Your task to perform on an android device: turn notification dots on Image 0: 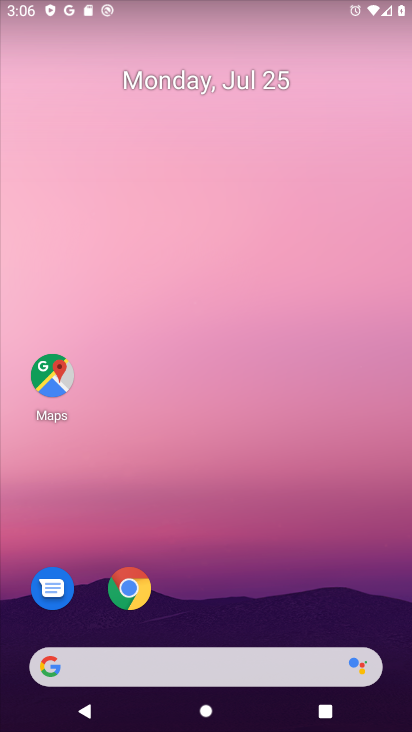
Step 0: drag from (214, 618) to (248, 117)
Your task to perform on an android device: turn notification dots on Image 1: 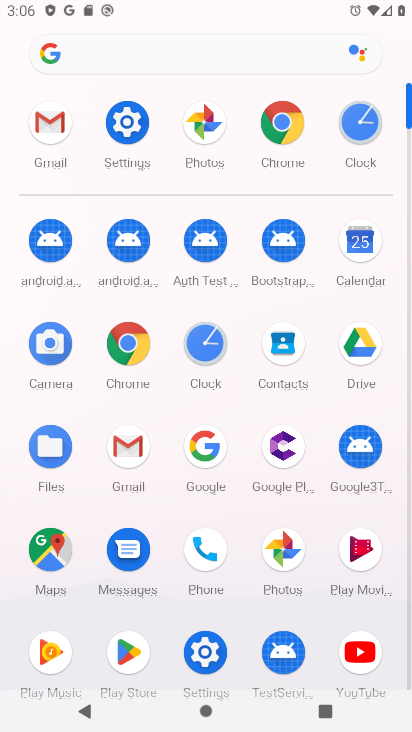
Step 1: click (123, 117)
Your task to perform on an android device: turn notification dots on Image 2: 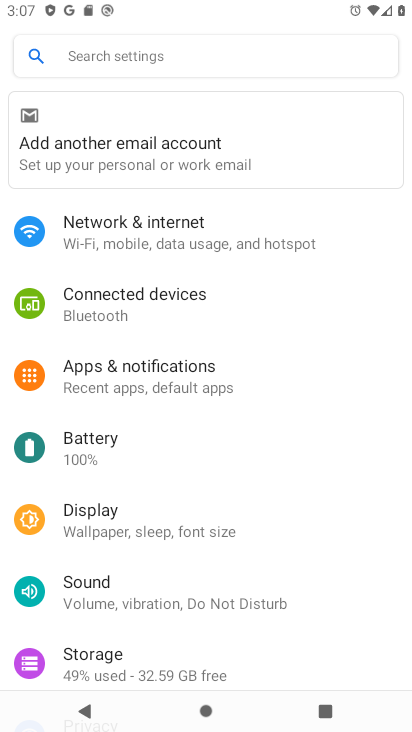
Step 2: click (208, 370)
Your task to perform on an android device: turn notification dots on Image 3: 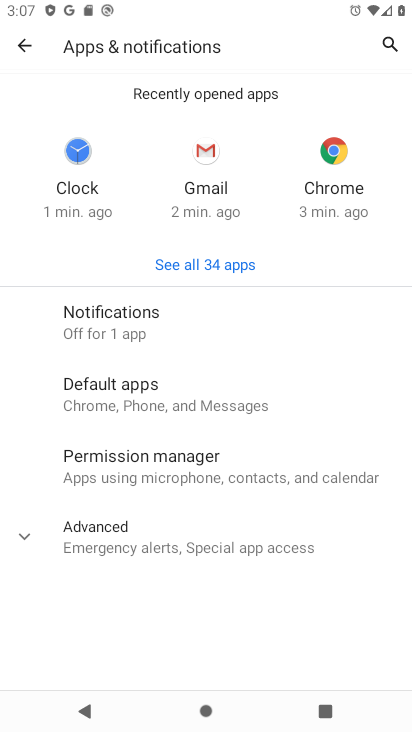
Step 3: click (118, 327)
Your task to perform on an android device: turn notification dots on Image 4: 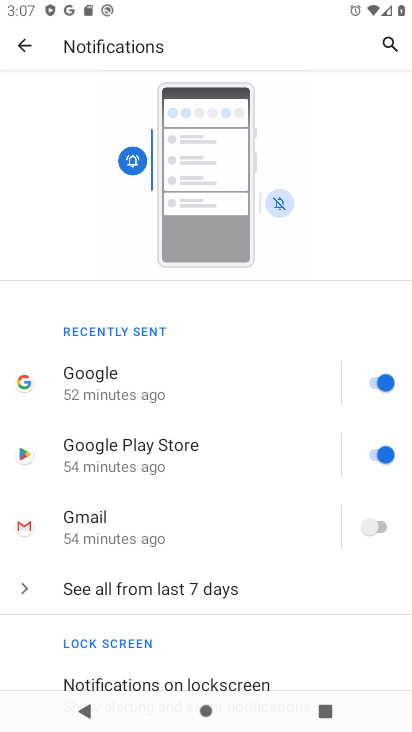
Step 4: drag from (240, 636) to (298, 259)
Your task to perform on an android device: turn notification dots on Image 5: 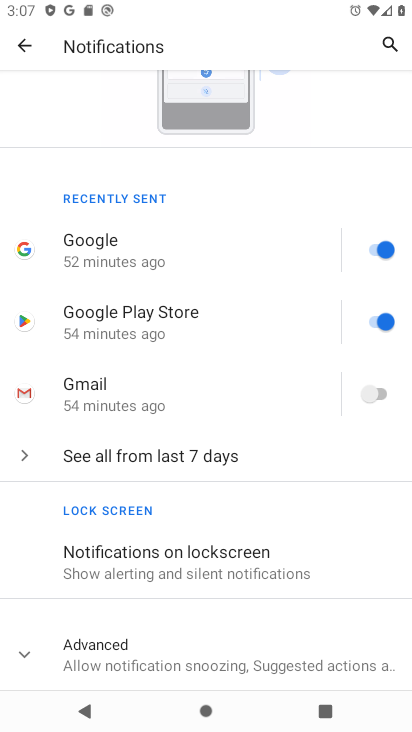
Step 5: drag from (218, 624) to (281, 177)
Your task to perform on an android device: turn notification dots on Image 6: 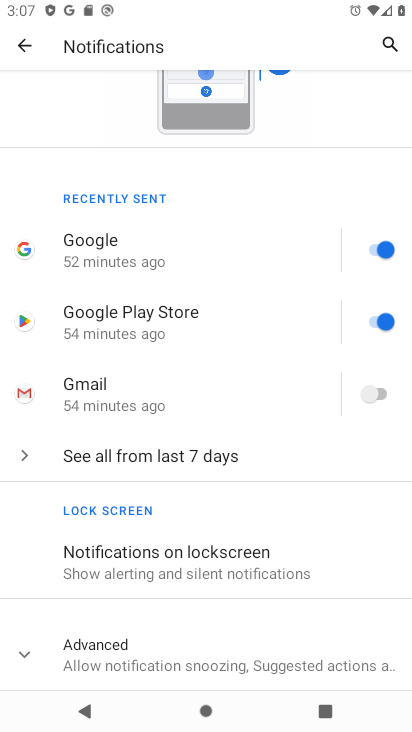
Step 6: click (148, 657)
Your task to perform on an android device: turn notification dots on Image 7: 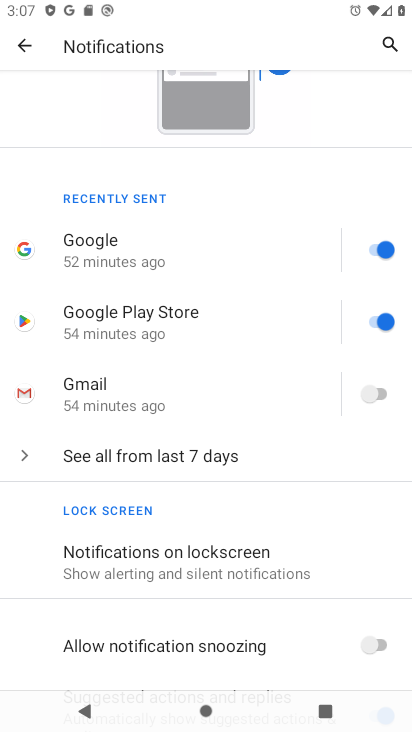
Step 7: drag from (240, 649) to (281, 205)
Your task to perform on an android device: turn notification dots on Image 8: 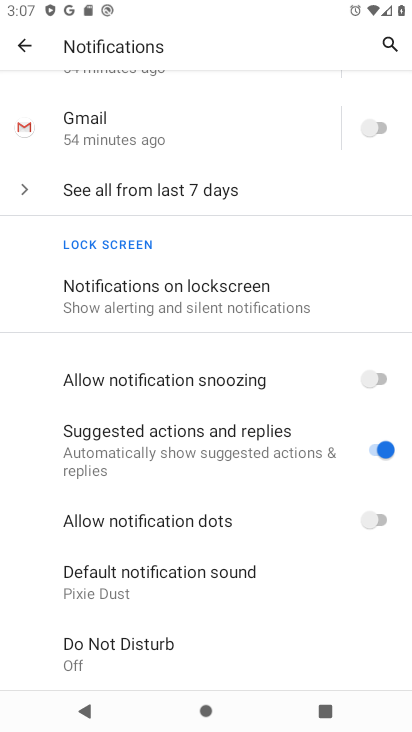
Step 8: click (378, 512)
Your task to perform on an android device: turn notification dots on Image 9: 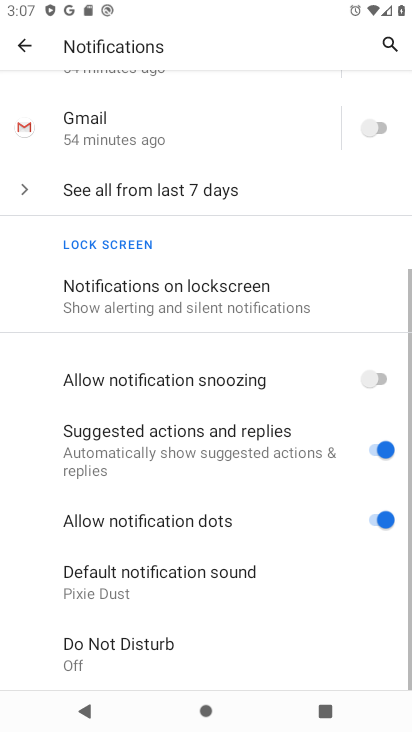
Step 9: task complete